Your task to perform on an android device: turn off sleep mode Image 0: 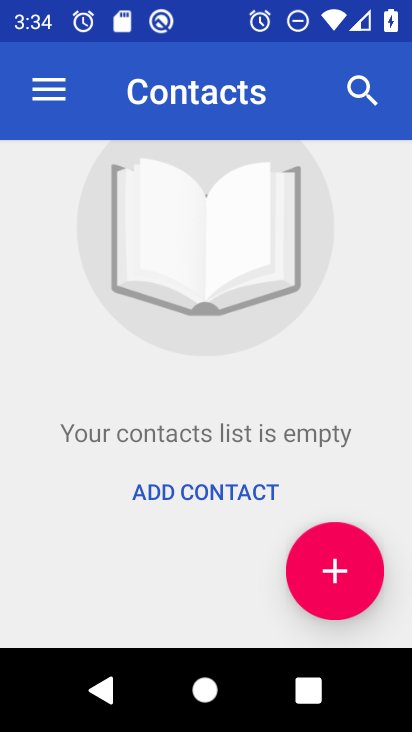
Step 0: press home button
Your task to perform on an android device: turn off sleep mode Image 1: 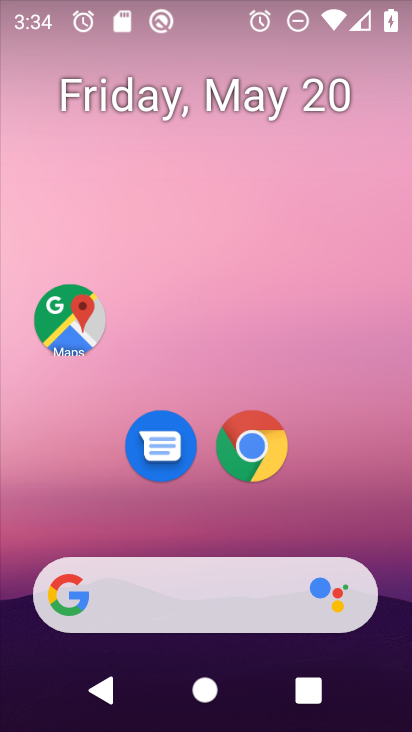
Step 1: drag from (356, 527) to (372, 6)
Your task to perform on an android device: turn off sleep mode Image 2: 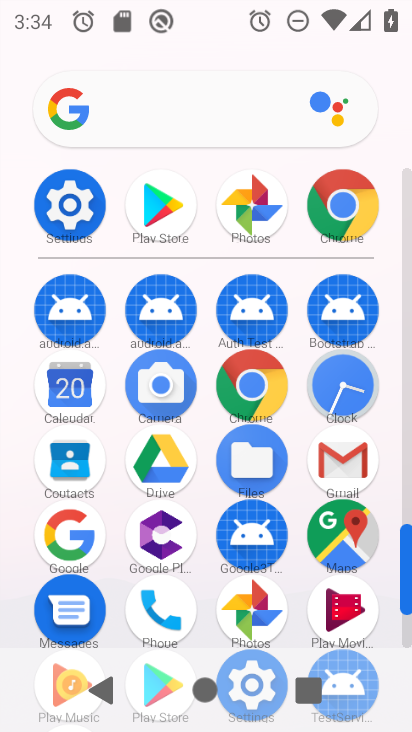
Step 2: click (66, 203)
Your task to perform on an android device: turn off sleep mode Image 3: 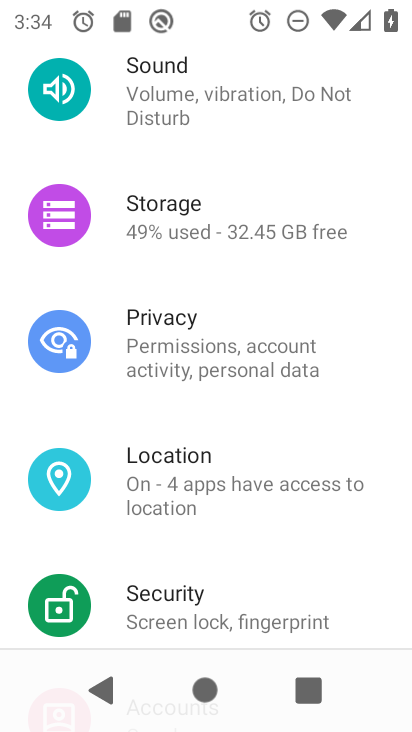
Step 3: drag from (286, 196) to (297, 474)
Your task to perform on an android device: turn off sleep mode Image 4: 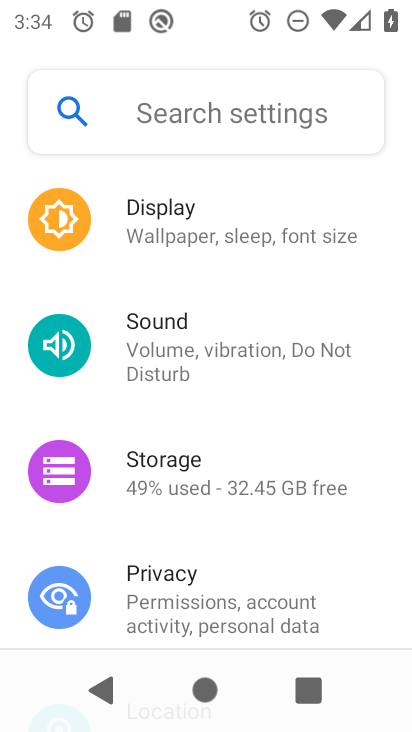
Step 4: click (188, 235)
Your task to perform on an android device: turn off sleep mode Image 5: 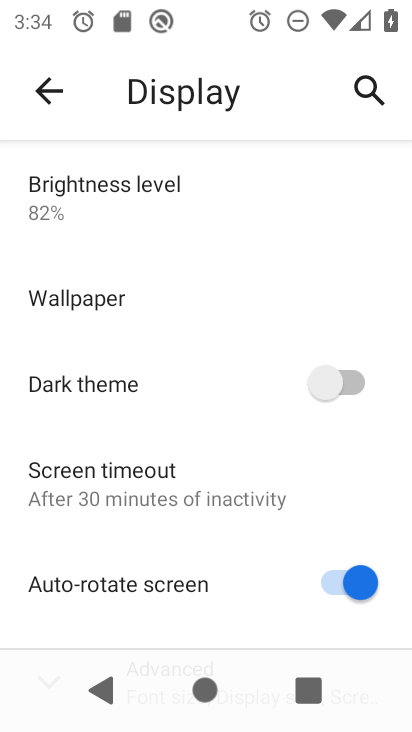
Step 5: drag from (111, 449) to (133, 219)
Your task to perform on an android device: turn off sleep mode Image 6: 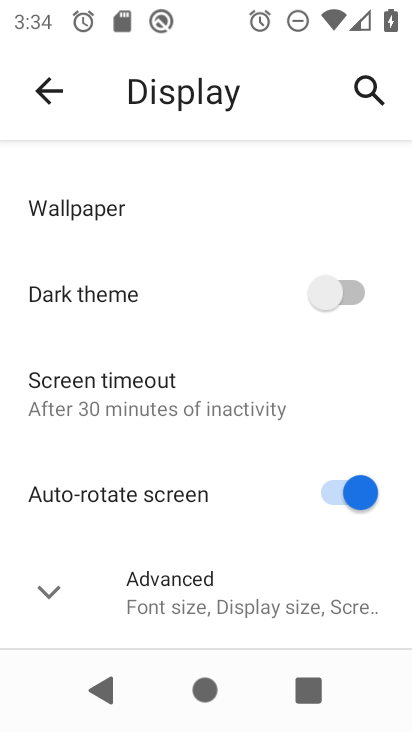
Step 6: click (54, 600)
Your task to perform on an android device: turn off sleep mode Image 7: 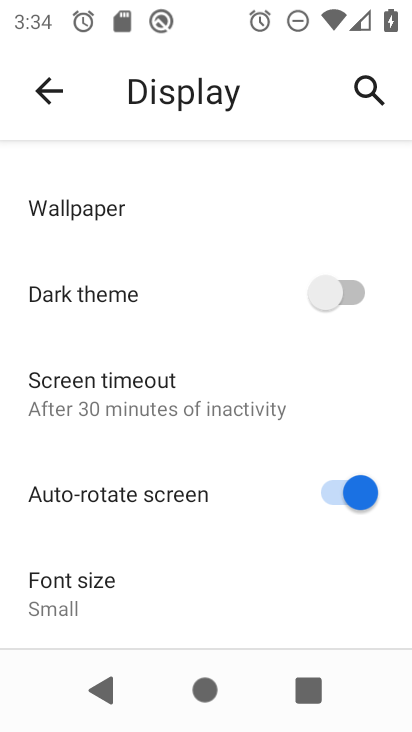
Step 7: task complete